Your task to perform on an android device: turn on the 24-hour format for clock Image 0: 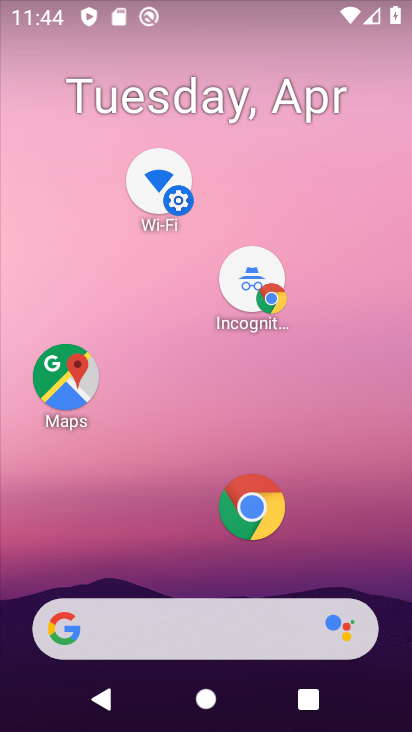
Step 0: drag from (21, 507) to (144, 275)
Your task to perform on an android device: turn on the 24-hour format for clock Image 1: 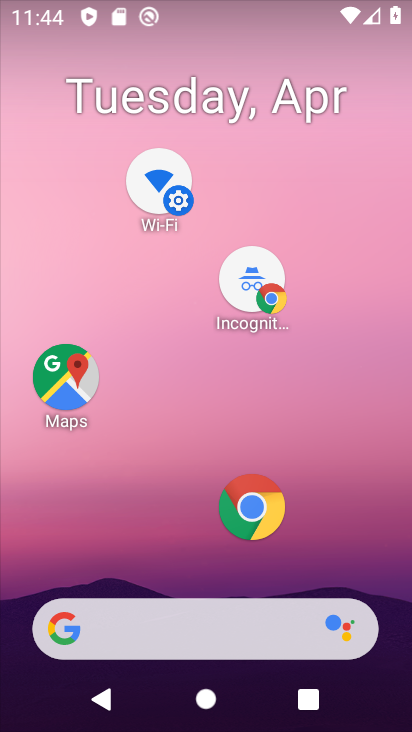
Step 1: drag from (52, 517) to (241, 192)
Your task to perform on an android device: turn on the 24-hour format for clock Image 2: 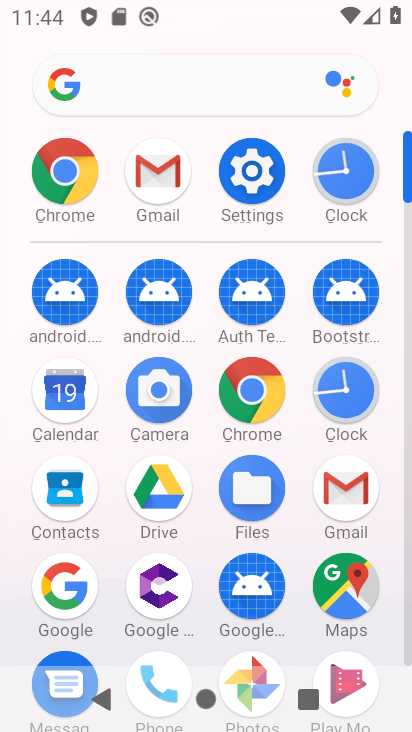
Step 2: click (361, 383)
Your task to perform on an android device: turn on the 24-hour format for clock Image 3: 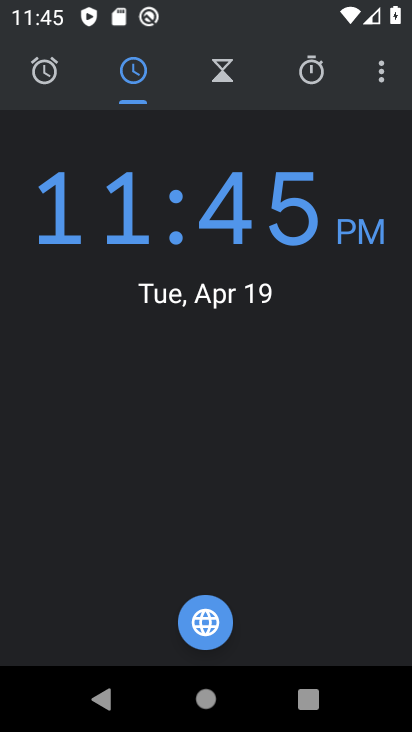
Step 3: click (379, 72)
Your task to perform on an android device: turn on the 24-hour format for clock Image 4: 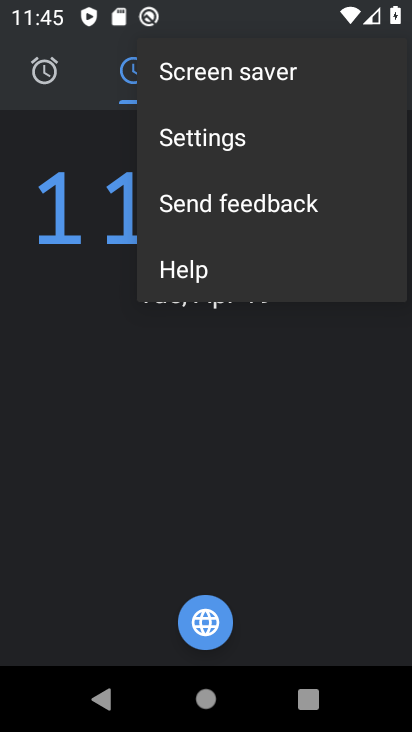
Step 4: click (217, 137)
Your task to perform on an android device: turn on the 24-hour format for clock Image 5: 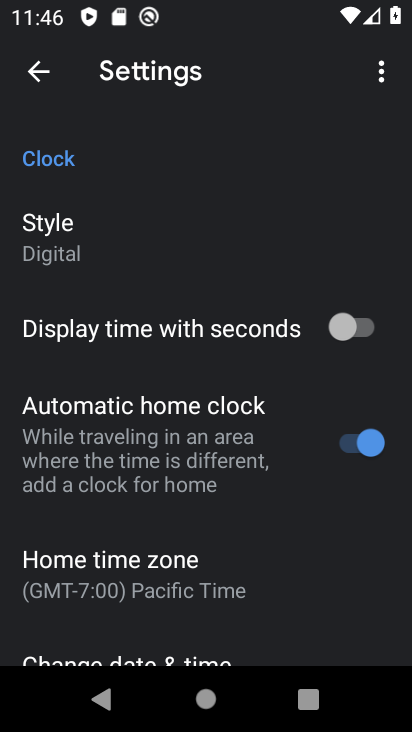
Step 5: drag from (168, 576) to (248, 254)
Your task to perform on an android device: turn on the 24-hour format for clock Image 6: 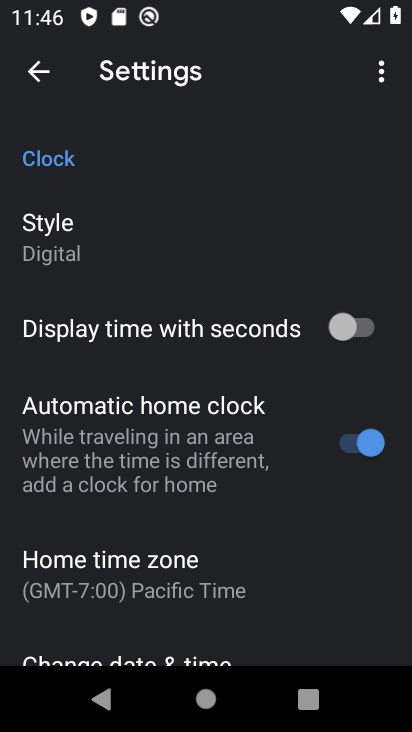
Step 6: drag from (123, 578) to (174, 282)
Your task to perform on an android device: turn on the 24-hour format for clock Image 7: 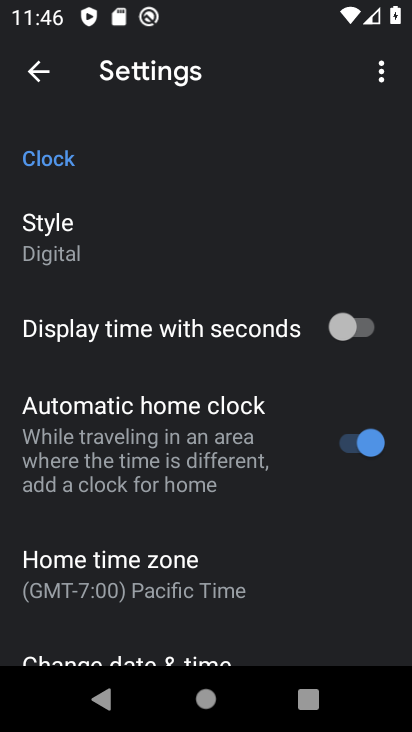
Step 7: drag from (257, 512) to (289, 333)
Your task to perform on an android device: turn on the 24-hour format for clock Image 8: 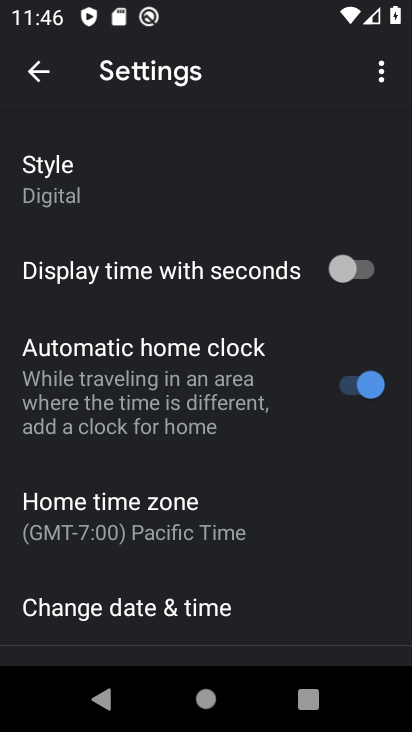
Step 8: drag from (212, 590) to (265, 341)
Your task to perform on an android device: turn on the 24-hour format for clock Image 9: 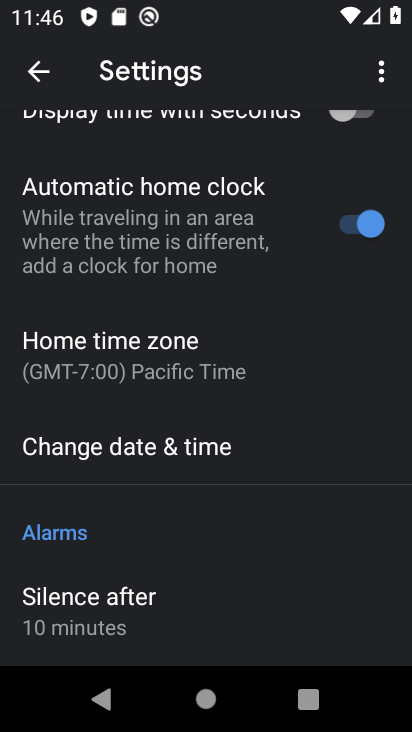
Step 9: click (187, 442)
Your task to perform on an android device: turn on the 24-hour format for clock Image 10: 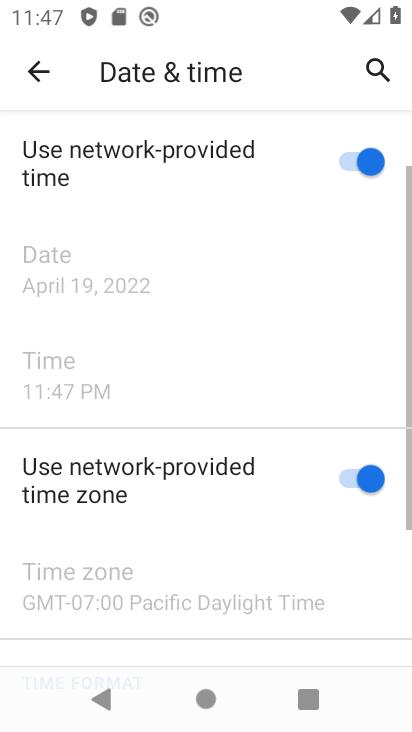
Step 10: drag from (96, 574) to (215, 240)
Your task to perform on an android device: turn on the 24-hour format for clock Image 11: 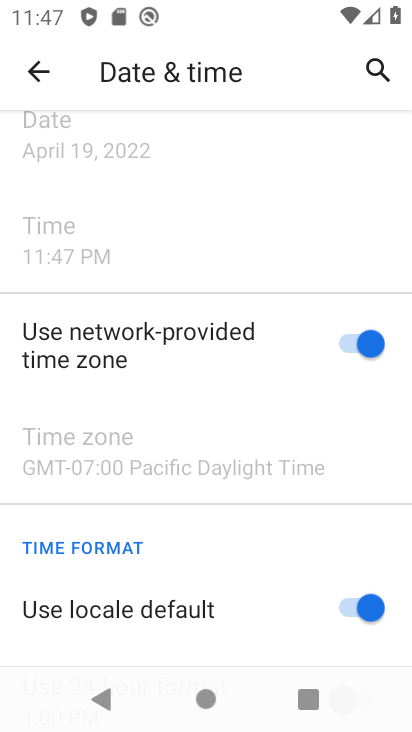
Step 11: drag from (179, 595) to (267, 304)
Your task to perform on an android device: turn on the 24-hour format for clock Image 12: 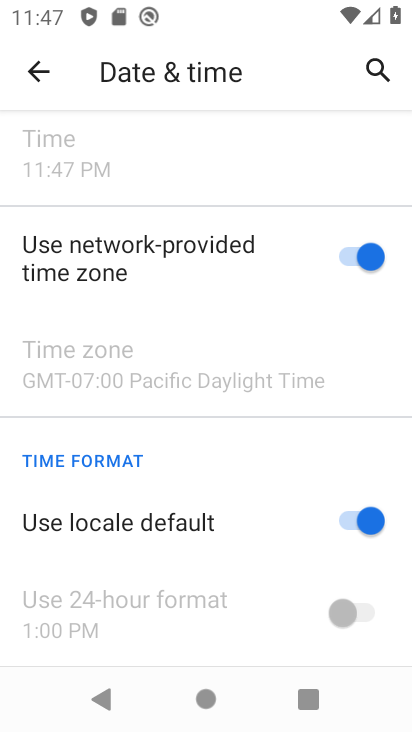
Step 12: drag from (182, 519) to (254, 283)
Your task to perform on an android device: turn on the 24-hour format for clock Image 13: 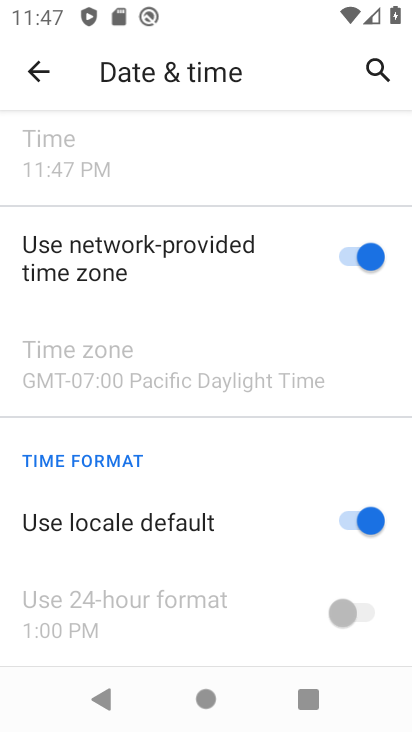
Step 13: click (373, 518)
Your task to perform on an android device: turn on the 24-hour format for clock Image 14: 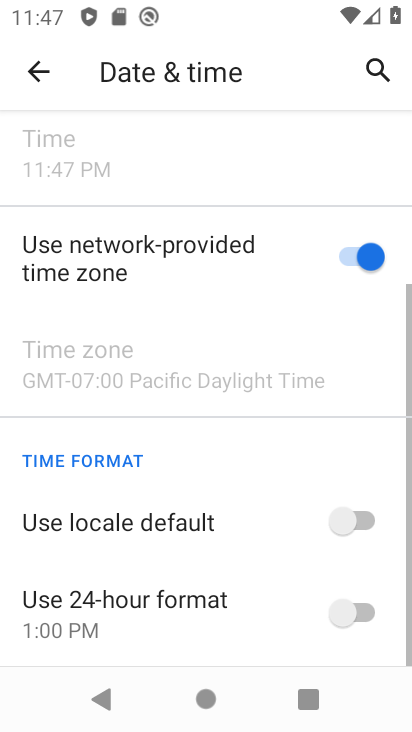
Step 14: click (352, 606)
Your task to perform on an android device: turn on the 24-hour format for clock Image 15: 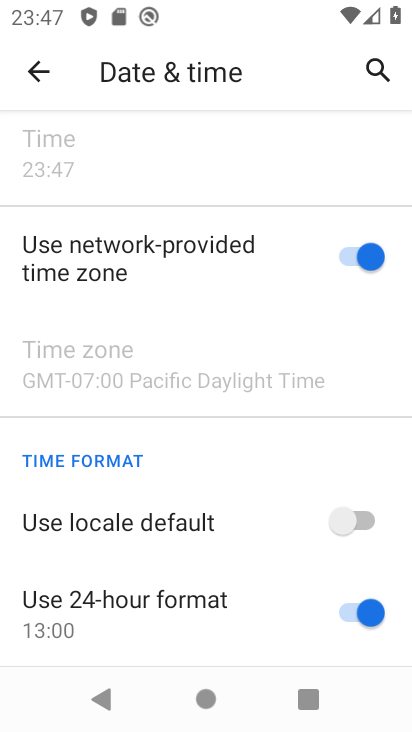
Step 15: task complete